Your task to perform on an android device: Go to settings Image 0: 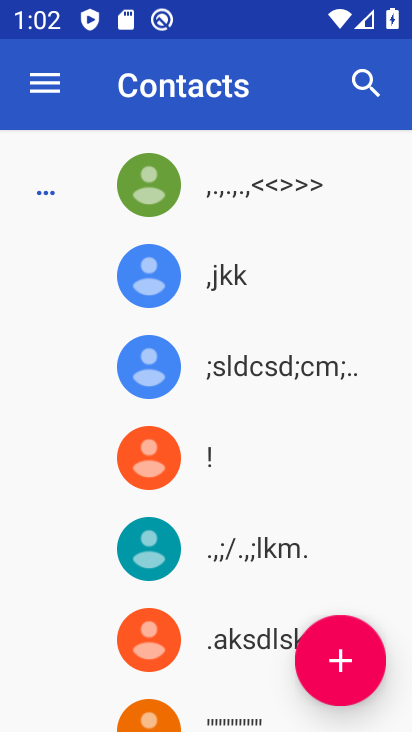
Step 0: press home button
Your task to perform on an android device: Go to settings Image 1: 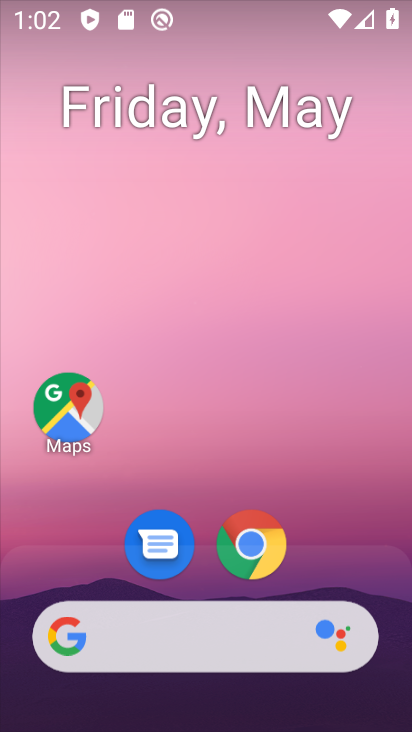
Step 1: drag from (49, 585) to (308, 207)
Your task to perform on an android device: Go to settings Image 2: 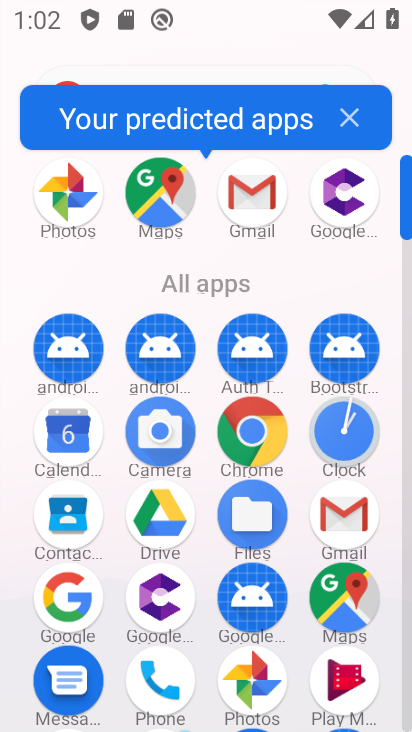
Step 2: drag from (130, 670) to (328, 286)
Your task to perform on an android device: Go to settings Image 3: 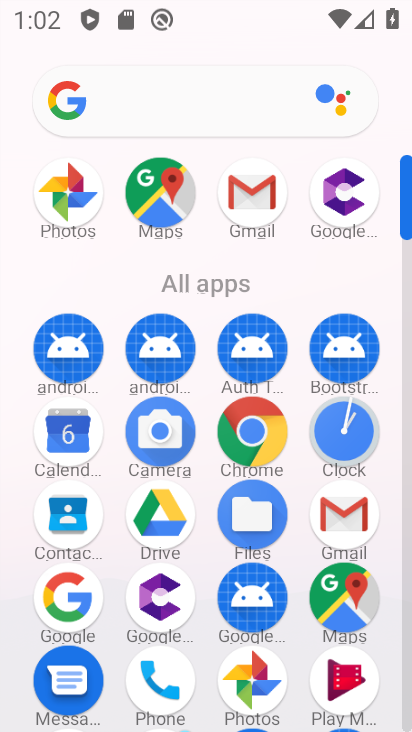
Step 3: drag from (59, 538) to (207, 213)
Your task to perform on an android device: Go to settings Image 4: 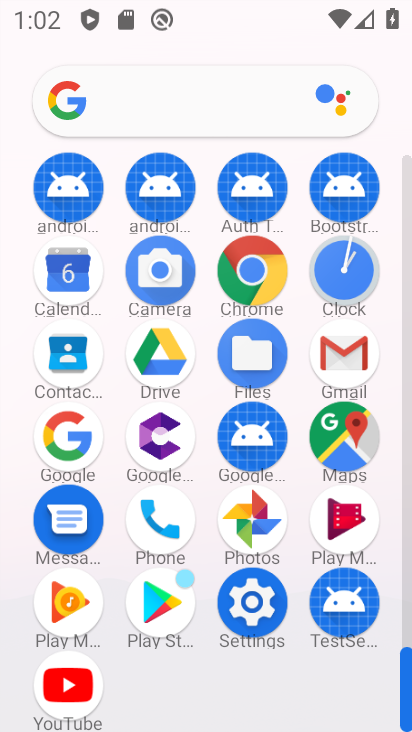
Step 4: click (235, 609)
Your task to perform on an android device: Go to settings Image 5: 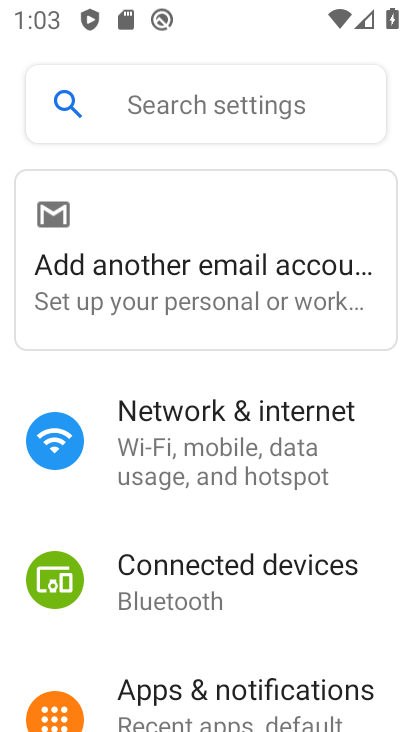
Step 5: task complete